Your task to perform on an android device: Go to network settings Image 0: 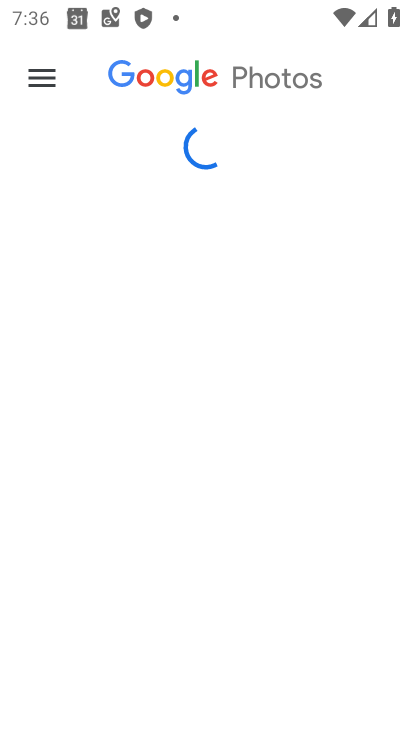
Step 0: press home button
Your task to perform on an android device: Go to network settings Image 1: 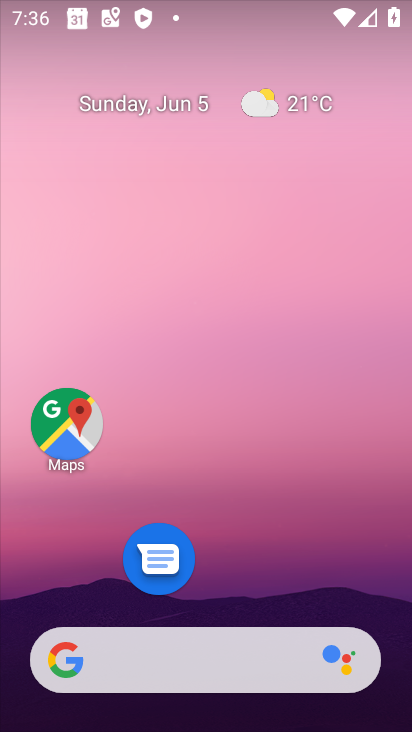
Step 1: drag from (184, 619) to (39, 18)
Your task to perform on an android device: Go to network settings Image 2: 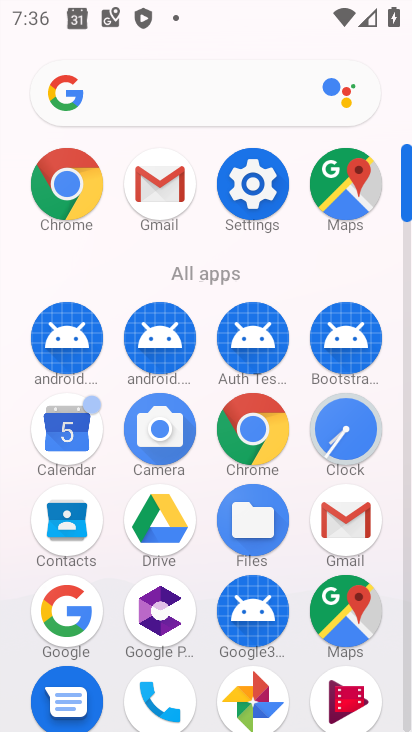
Step 2: click (245, 198)
Your task to perform on an android device: Go to network settings Image 3: 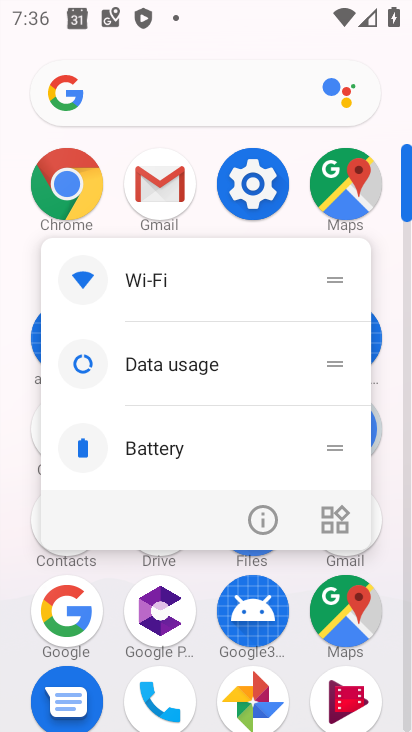
Step 3: click (239, 176)
Your task to perform on an android device: Go to network settings Image 4: 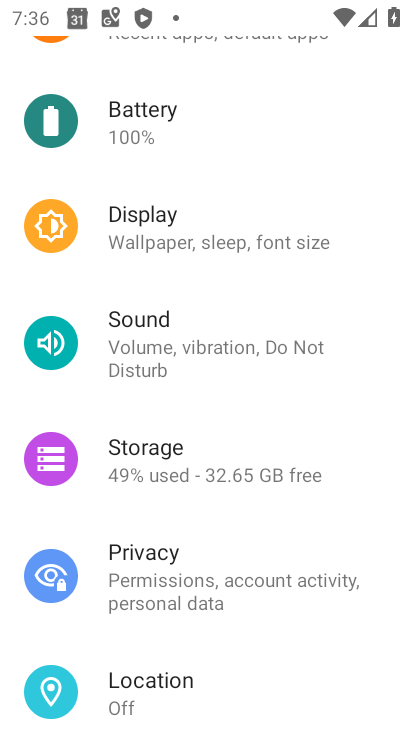
Step 4: drag from (238, 176) to (237, 731)
Your task to perform on an android device: Go to network settings Image 5: 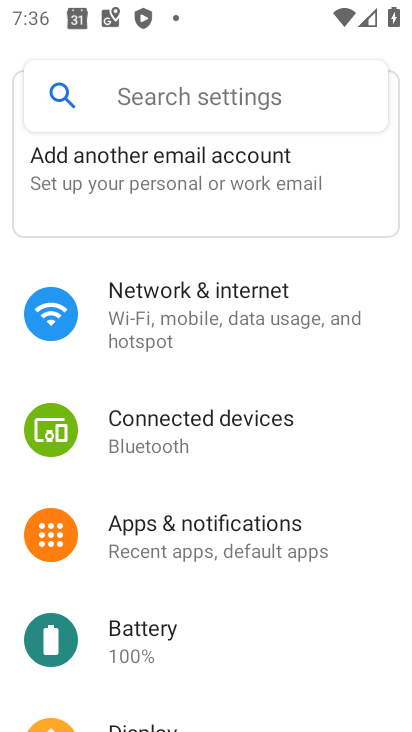
Step 5: click (204, 298)
Your task to perform on an android device: Go to network settings Image 6: 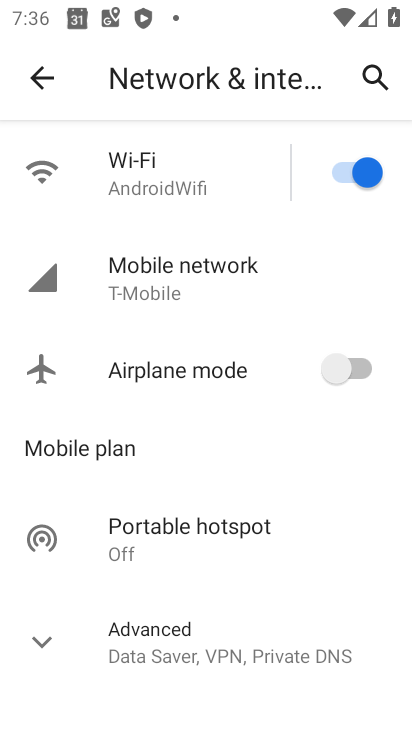
Step 6: click (162, 283)
Your task to perform on an android device: Go to network settings Image 7: 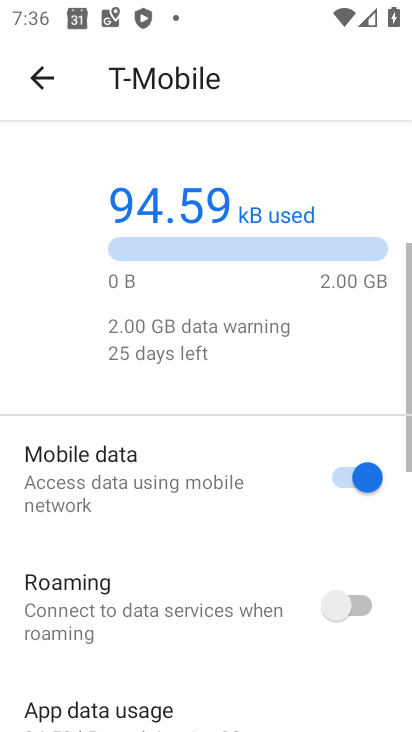
Step 7: task complete